Your task to perform on an android device: snooze an email in the gmail app Image 0: 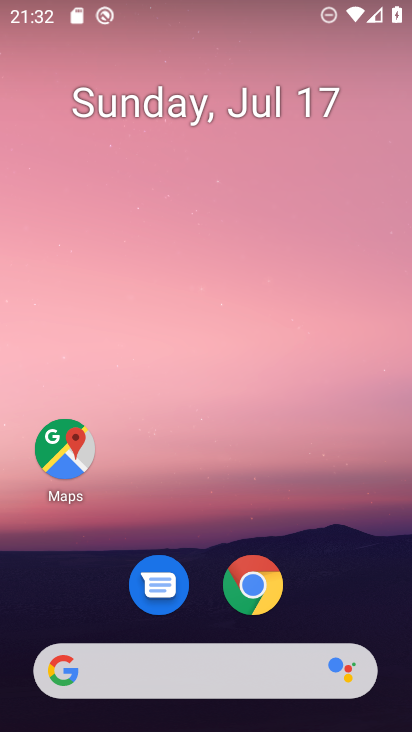
Step 0: drag from (236, 686) to (343, 142)
Your task to perform on an android device: snooze an email in the gmail app Image 1: 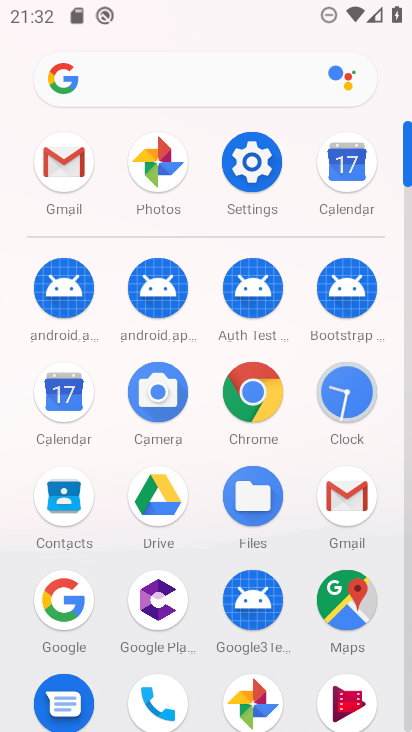
Step 1: click (343, 508)
Your task to perform on an android device: snooze an email in the gmail app Image 2: 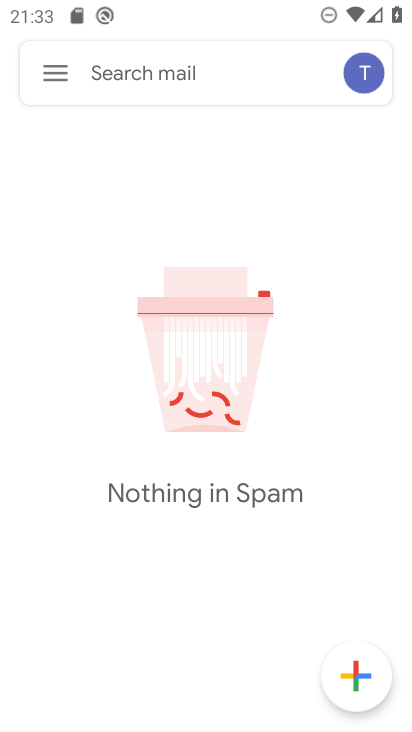
Step 2: task complete